Your task to perform on an android device: turn on wifi Image 0: 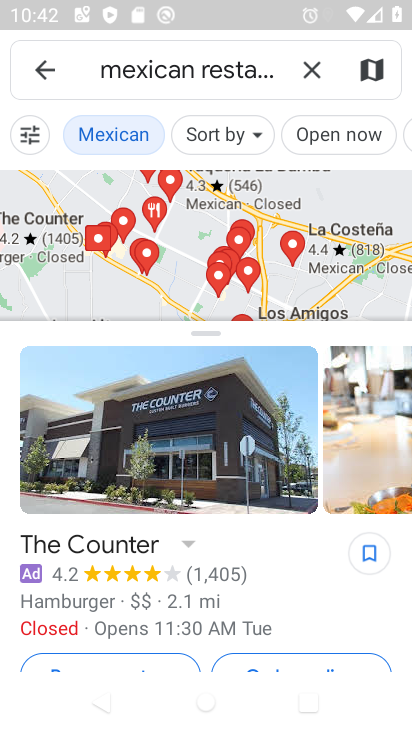
Step 0: press home button
Your task to perform on an android device: turn on wifi Image 1: 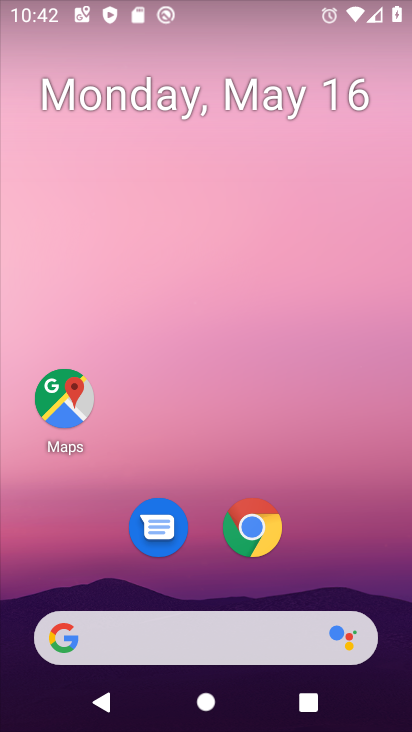
Step 1: drag from (341, 550) to (254, 26)
Your task to perform on an android device: turn on wifi Image 2: 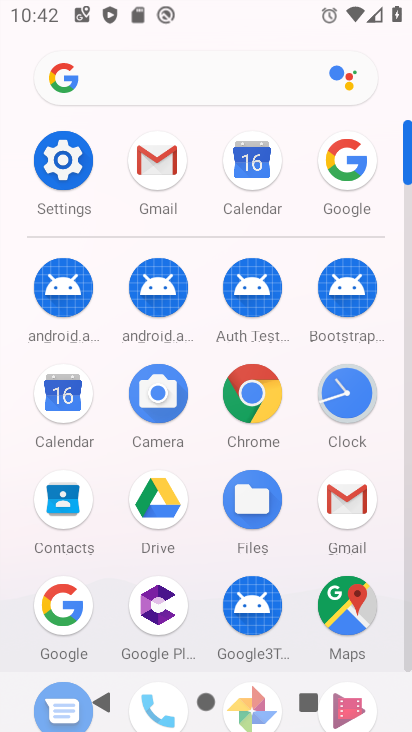
Step 2: click (66, 162)
Your task to perform on an android device: turn on wifi Image 3: 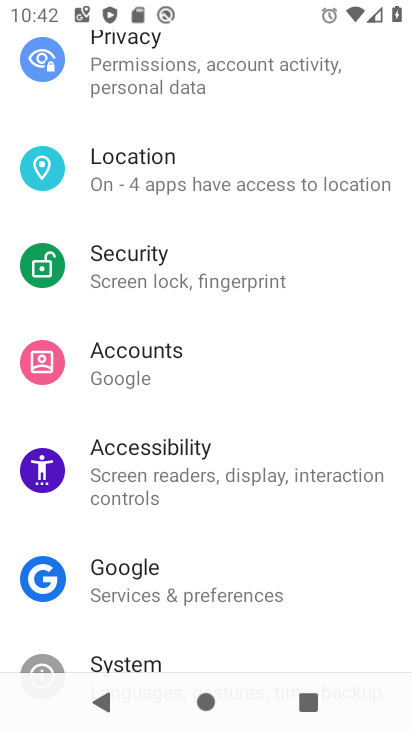
Step 3: drag from (332, 147) to (345, 560)
Your task to perform on an android device: turn on wifi Image 4: 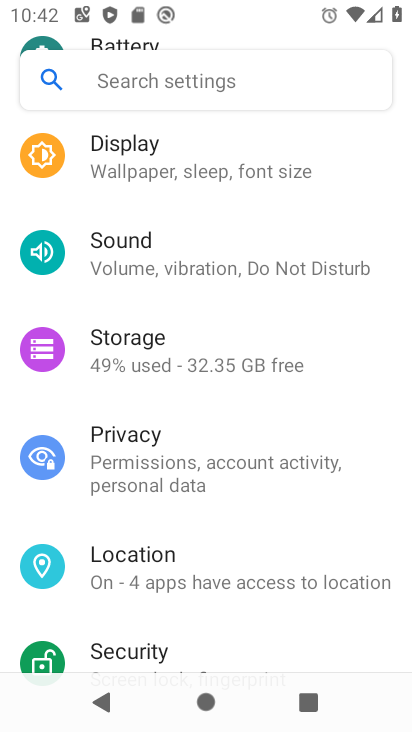
Step 4: drag from (290, 220) to (320, 633)
Your task to perform on an android device: turn on wifi Image 5: 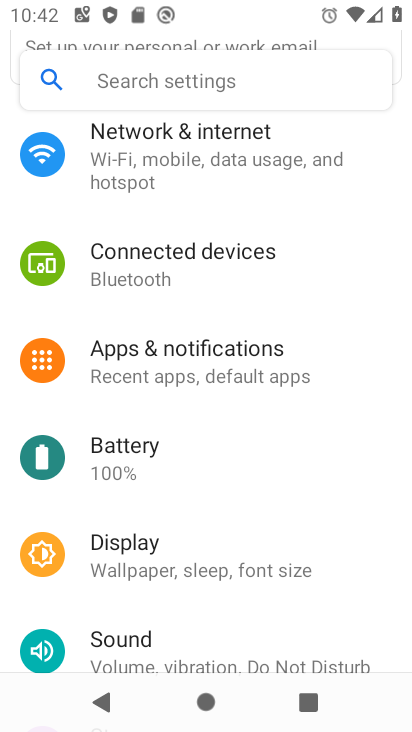
Step 5: click (154, 159)
Your task to perform on an android device: turn on wifi Image 6: 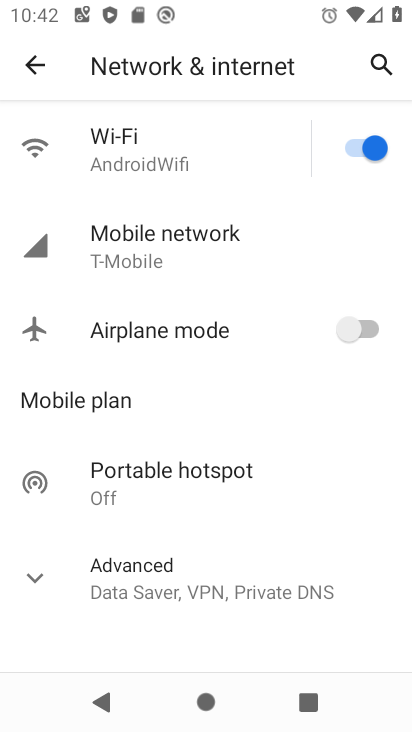
Step 6: task complete